Your task to perform on an android device: Do I have any events tomorrow? Image 0: 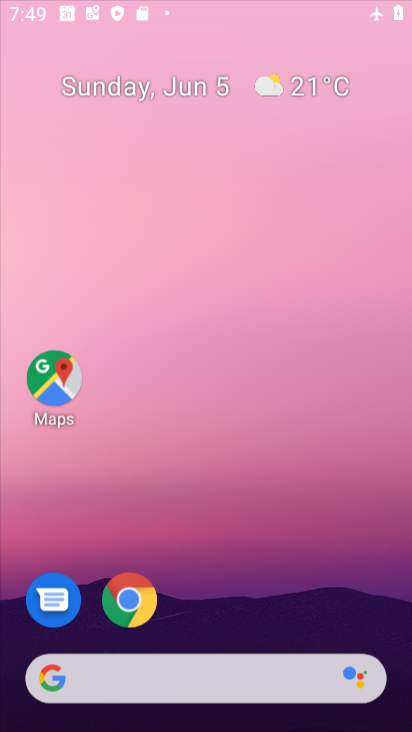
Step 0: drag from (226, 438) to (212, 1)
Your task to perform on an android device: Do I have any events tomorrow? Image 1: 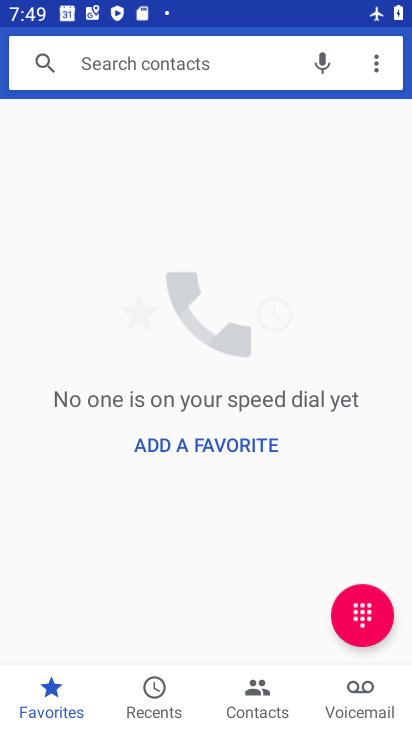
Step 1: press home button
Your task to perform on an android device: Do I have any events tomorrow? Image 2: 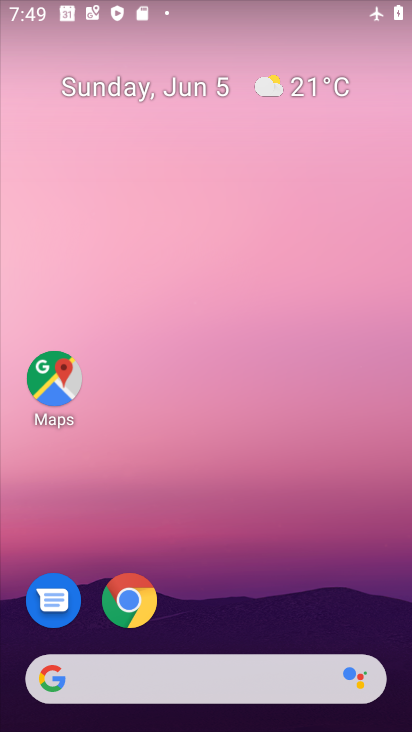
Step 2: drag from (250, 590) to (265, 0)
Your task to perform on an android device: Do I have any events tomorrow? Image 3: 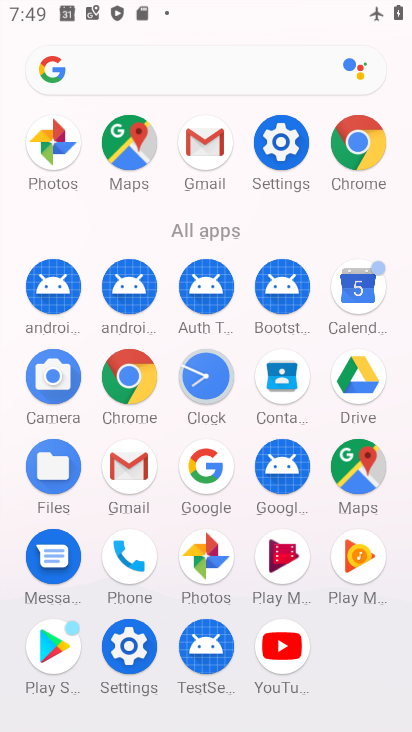
Step 3: click (362, 293)
Your task to perform on an android device: Do I have any events tomorrow? Image 4: 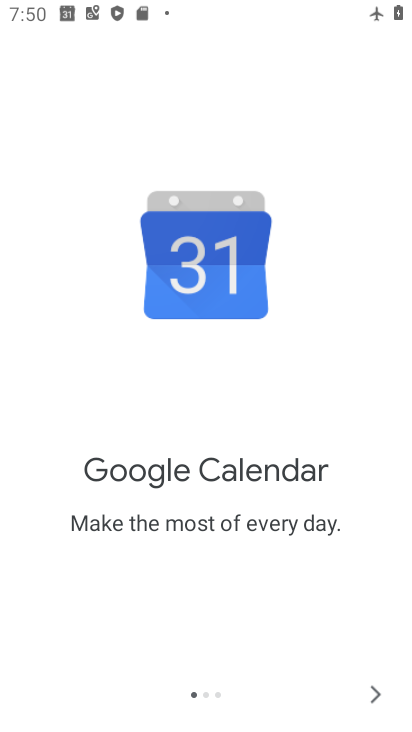
Step 4: click (377, 692)
Your task to perform on an android device: Do I have any events tomorrow? Image 5: 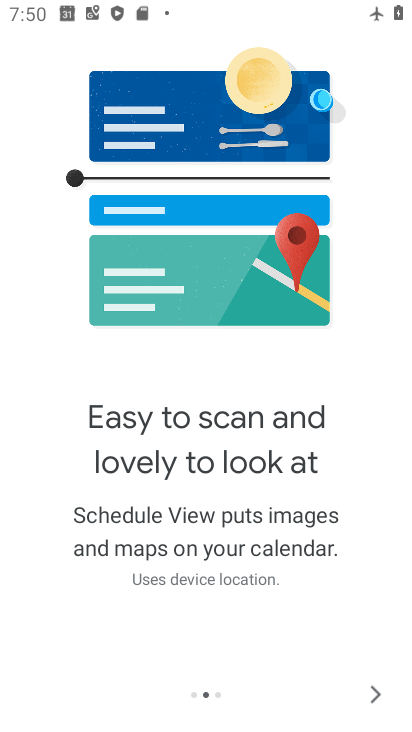
Step 5: click (377, 691)
Your task to perform on an android device: Do I have any events tomorrow? Image 6: 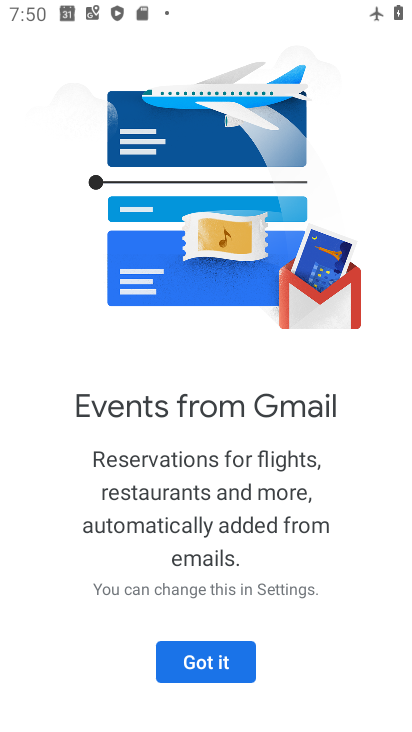
Step 6: click (231, 665)
Your task to perform on an android device: Do I have any events tomorrow? Image 7: 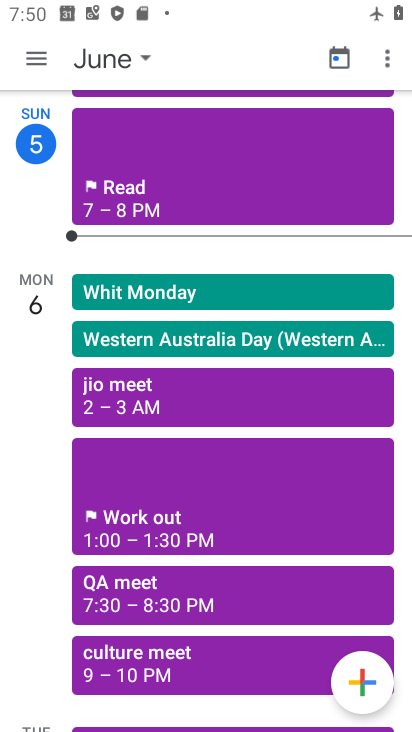
Step 7: task complete